Your task to perform on an android device: turn on sleep mode Image 0: 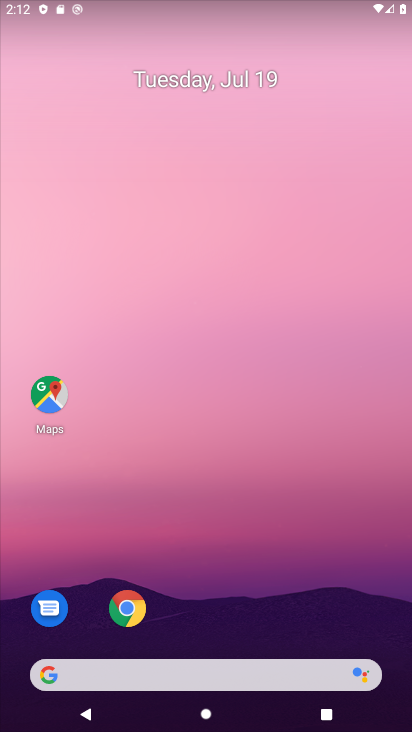
Step 0: drag from (283, 9) to (296, 472)
Your task to perform on an android device: turn on sleep mode Image 1: 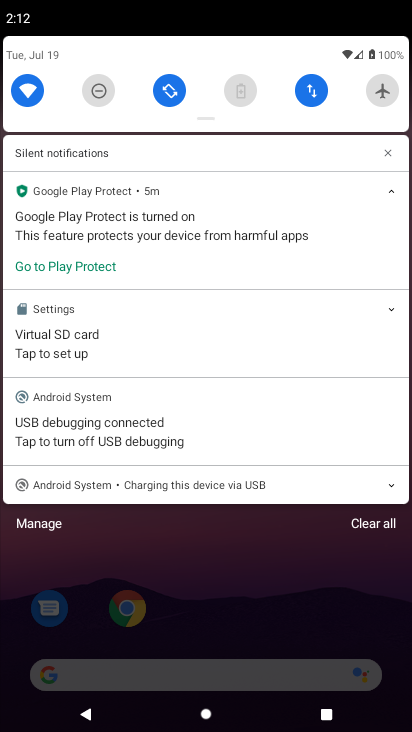
Step 1: drag from (217, 112) to (223, 603)
Your task to perform on an android device: turn on sleep mode Image 2: 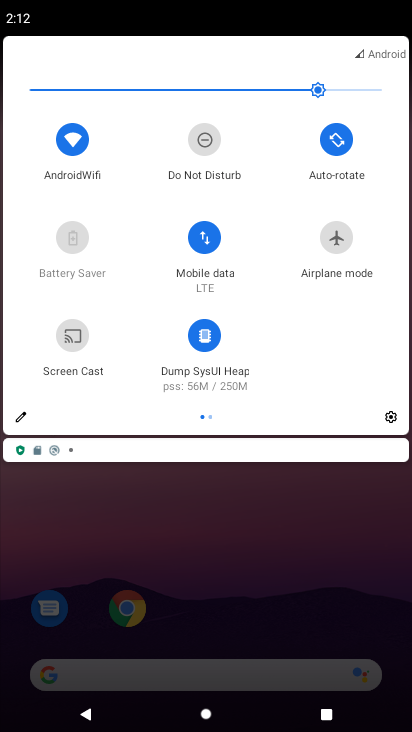
Step 2: click (20, 408)
Your task to perform on an android device: turn on sleep mode Image 3: 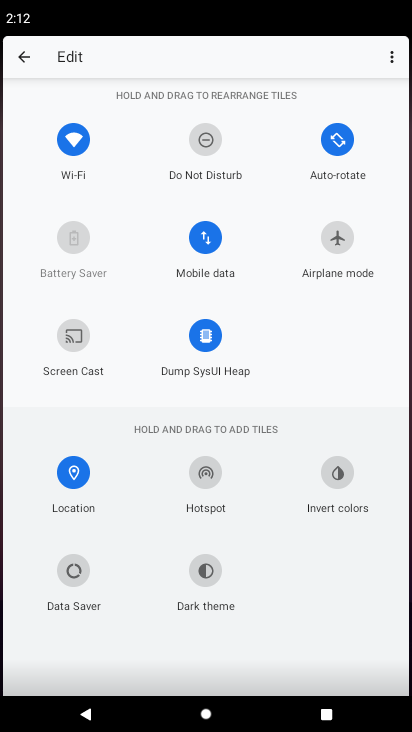
Step 3: task complete